Your task to perform on an android device: Open Wikipedia Image 0: 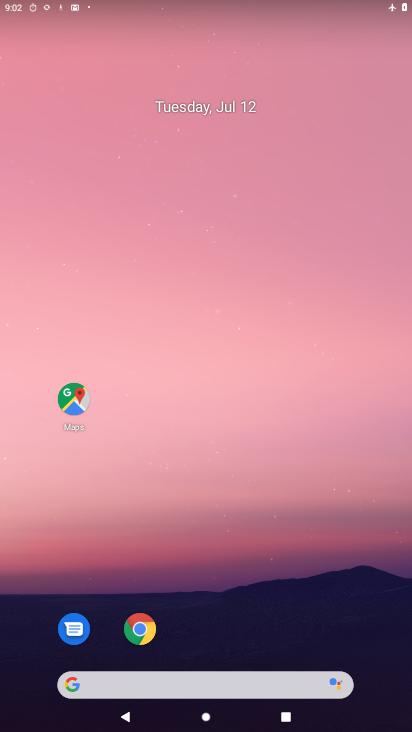
Step 0: drag from (234, 446) to (178, 114)
Your task to perform on an android device: Open Wikipedia Image 1: 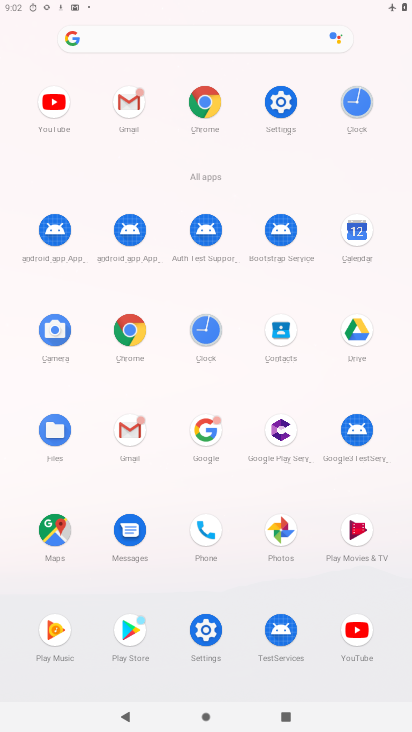
Step 1: click (207, 115)
Your task to perform on an android device: Open Wikipedia Image 2: 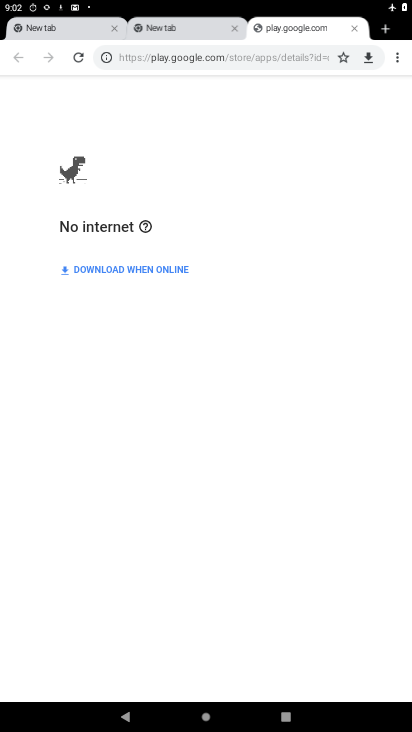
Step 2: task complete